Your task to perform on an android device: change your default location settings in chrome Image 0: 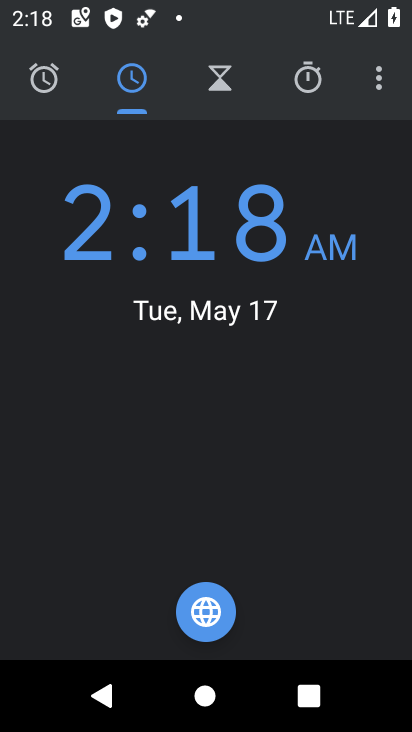
Step 0: press home button
Your task to perform on an android device: change your default location settings in chrome Image 1: 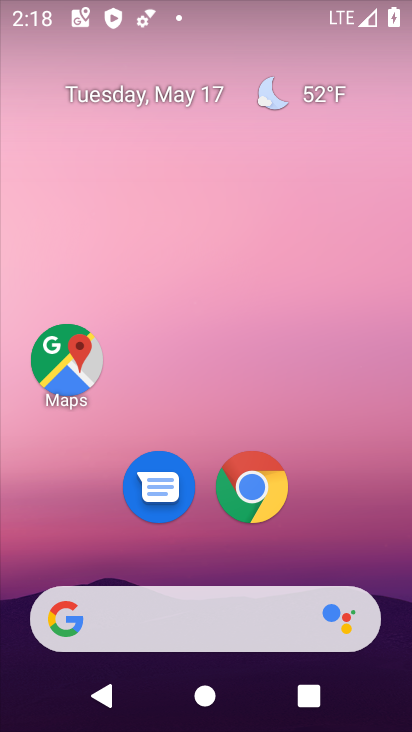
Step 1: click (256, 491)
Your task to perform on an android device: change your default location settings in chrome Image 2: 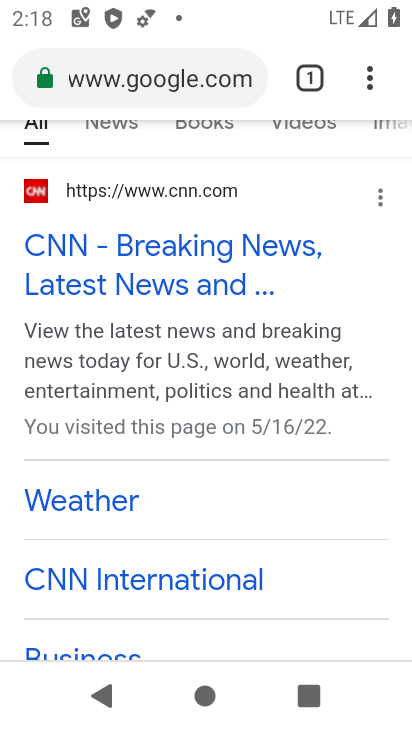
Step 2: click (366, 78)
Your task to perform on an android device: change your default location settings in chrome Image 3: 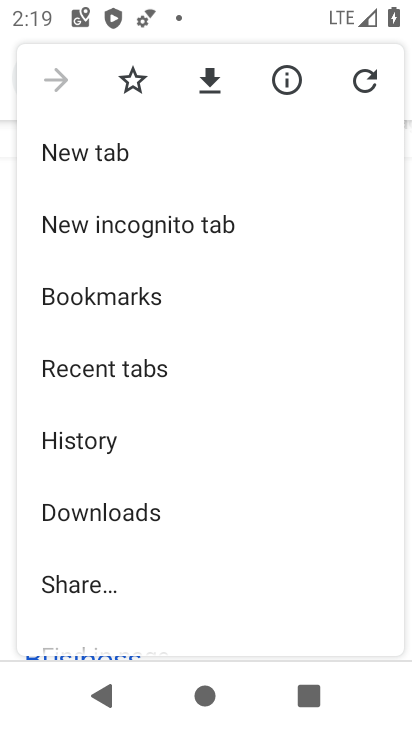
Step 3: drag from (288, 548) to (290, 338)
Your task to perform on an android device: change your default location settings in chrome Image 4: 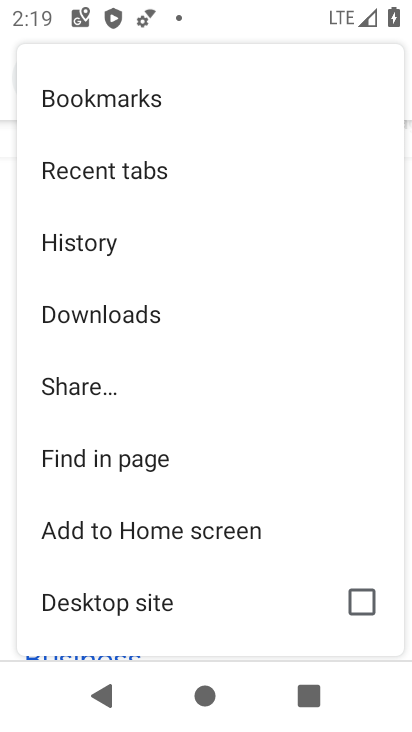
Step 4: drag from (280, 581) to (262, 360)
Your task to perform on an android device: change your default location settings in chrome Image 5: 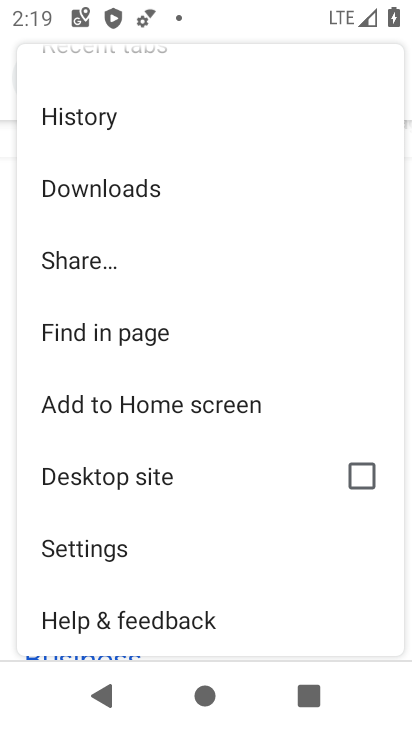
Step 5: click (105, 547)
Your task to perform on an android device: change your default location settings in chrome Image 6: 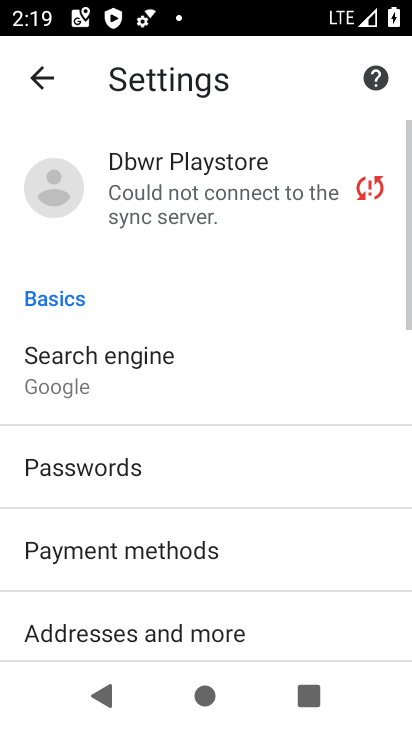
Step 6: drag from (309, 611) to (302, 377)
Your task to perform on an android device: change your default location settings in chrome Image 7: 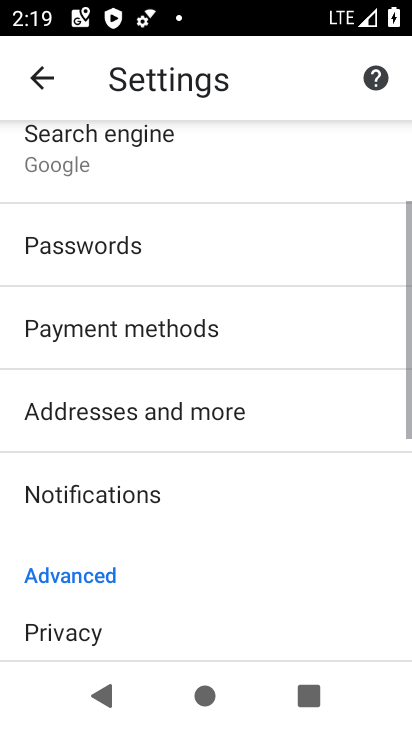
Step 7: drag from (281, 603) to (252, 422)
Your task to perform on an android device: change your default location settings in chrome Image 8: 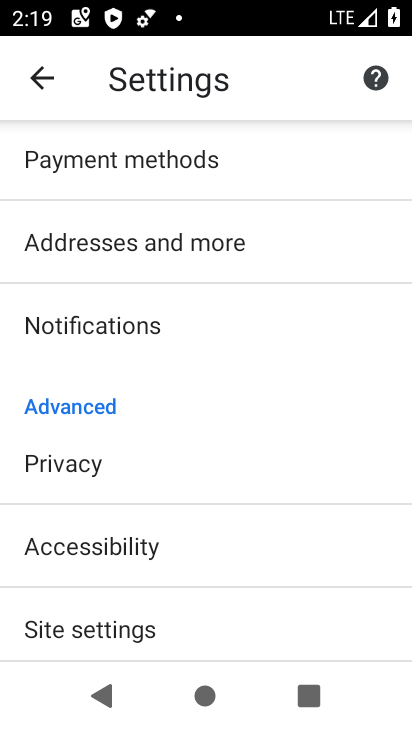
Step 8: drag from (248, 630) to (231, 419)
Your task to perform on an android device: change your default location settings in chrome Image 9: 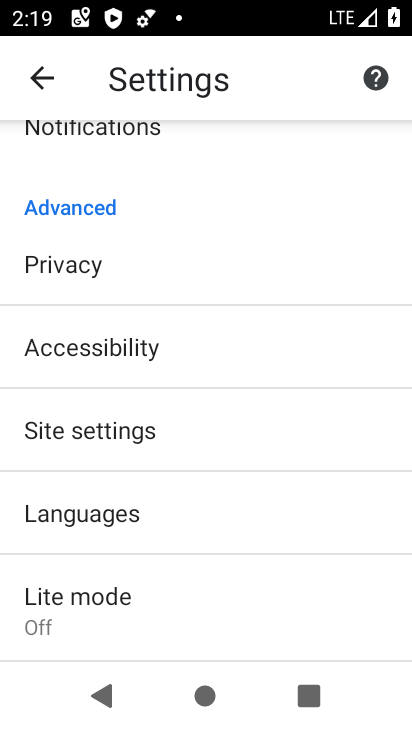
Step 9: click (102, 433)
Your task to perform on an android device: change your default location settings in chrome Image 10: 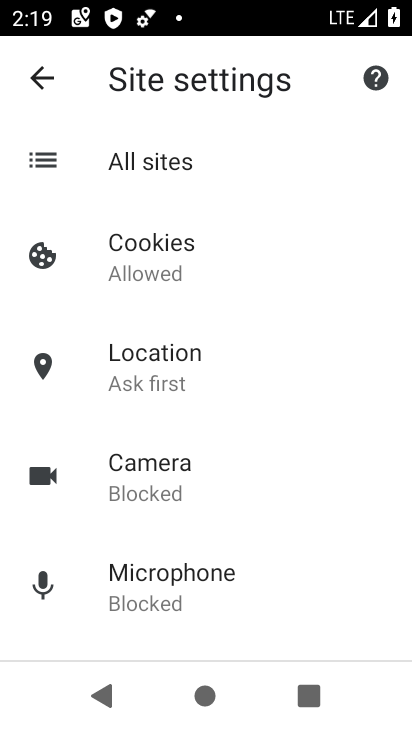
Step 10: click (154, 363)
Your task to perform on an android device: change your default location settings in chrome Image 11: 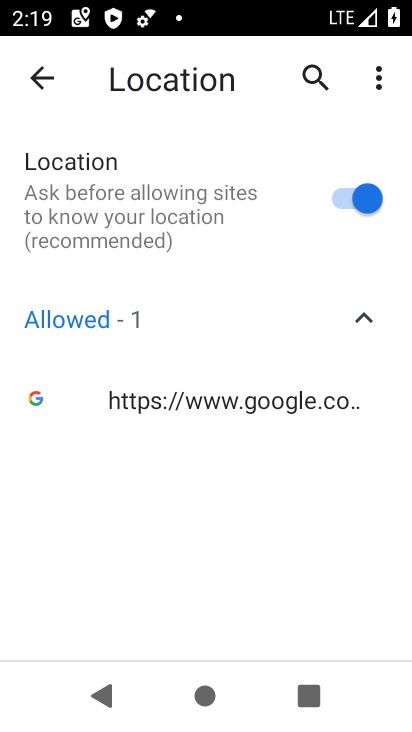
Step 11: task complete